Your task to perform on an android device: Open Google Chrome Image 0: 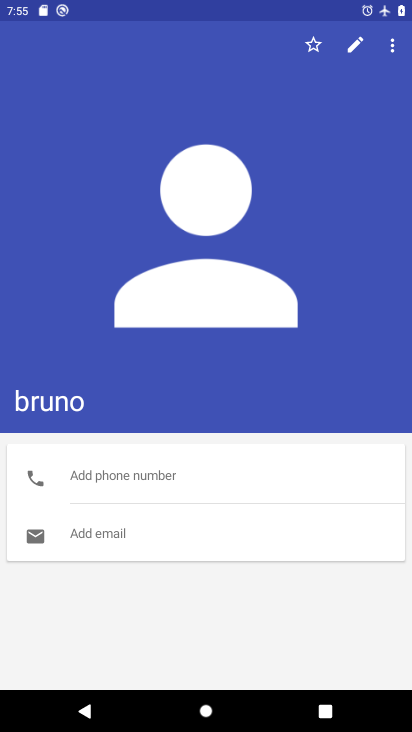
Step 0: press home button
Your task to perform on an android device: Open Google Chrome Image 1: 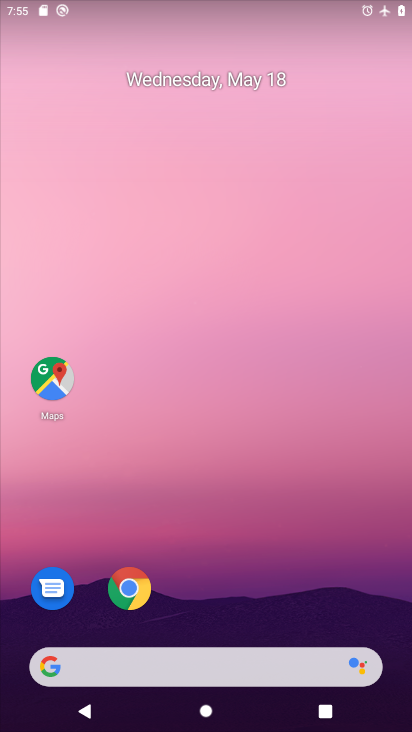
Step 1: click (133, 588)
Your task to perform on an android device: Open Google Chrome Image 2: 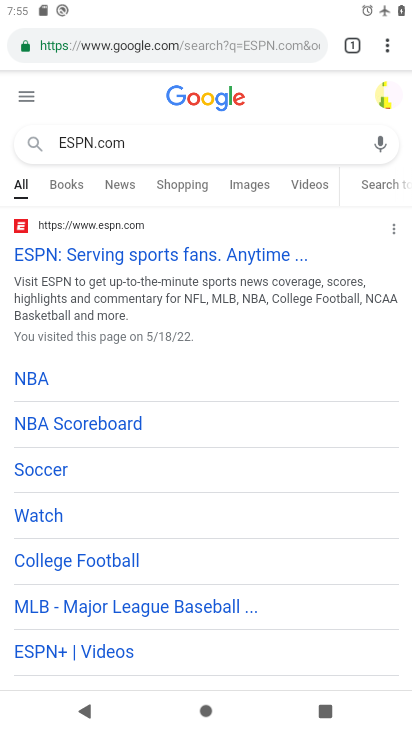
Step 2: task complete